Your task to perform on an android device: find photos in the google photos app Image 0: 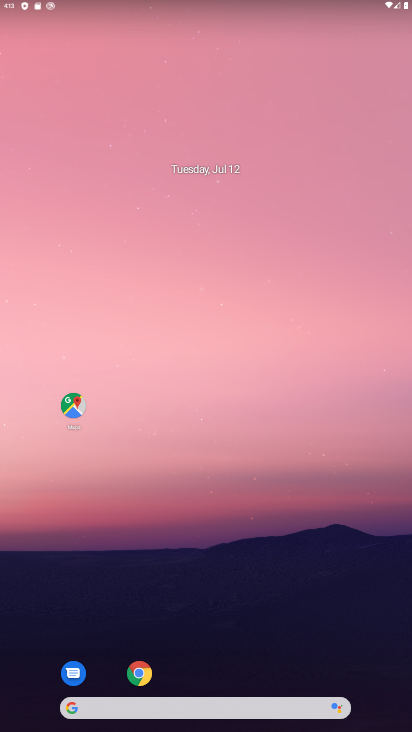
Step 0: drag from (252, 580) to (275, 258)
Your task to perform on an android device: find photos in the google photos app Image 1: 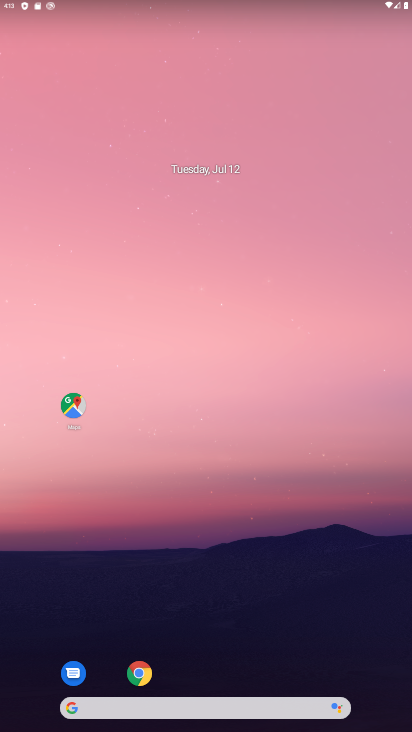
Step 1: drag from (355, 641) to (345, 6)
Your task to perform on an android device: find photos in the google photos app Image 2: 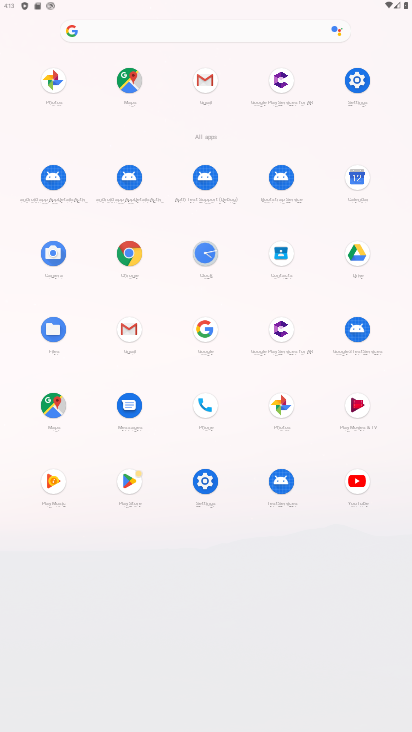
Step 2: click (288, 399)
Your task to perform on an android device: find photos in the google photos app Image 3: 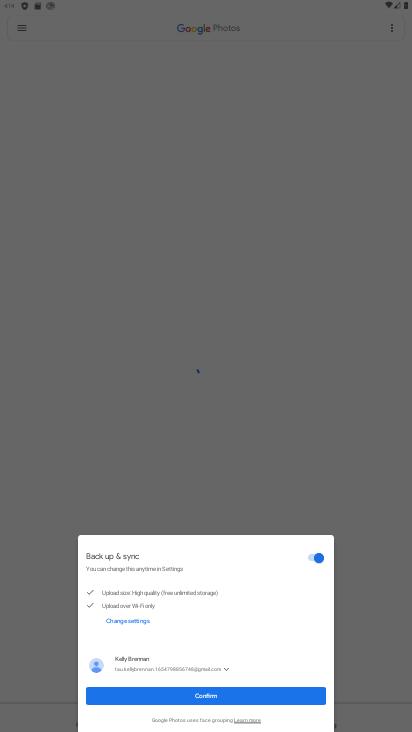
Step 3: click (255, 703)
Your task to perform on an android device: find photos in the google photos app Image 4: 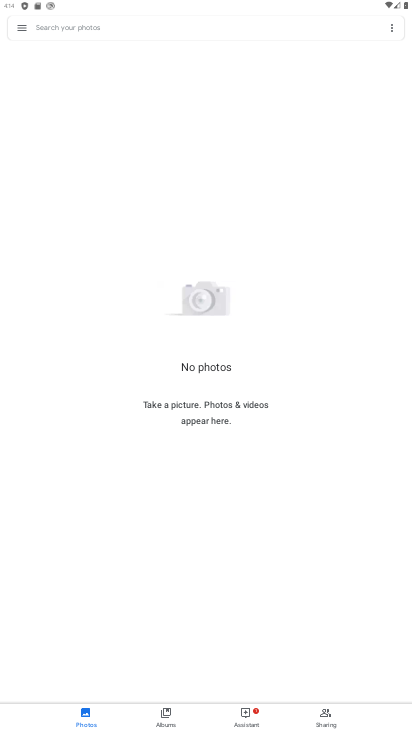
Step 4: task complete